Your task to perform on an android device: delete the emails in spam in the gmail app Image 0: 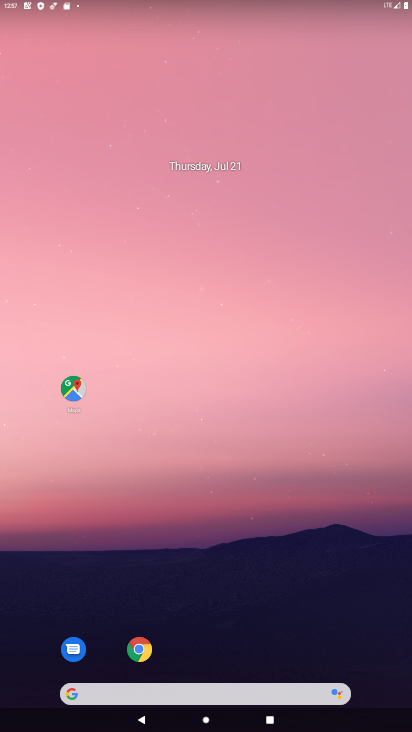
Step 0: drag from (170, 670) to (175, 178)
Your task to perform on an android device: delete the emails in spam in the gmail app Image 1: 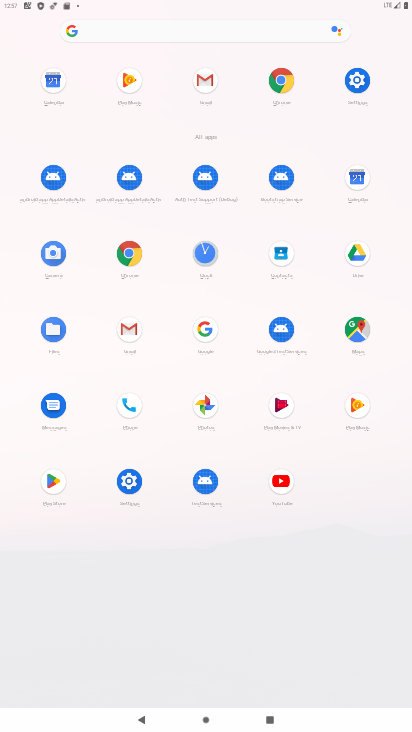
Step 1: click (214, 85)
Your task to perform on an android device: delete the emails in spam in the gmail app Image 2: 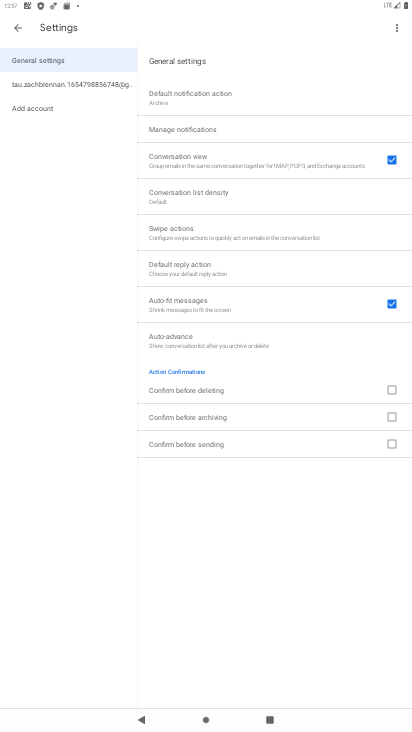
Step 2: click (10, 25)
Your task to perform on an android device: delete the emails in spam in the gmail app Image 3: 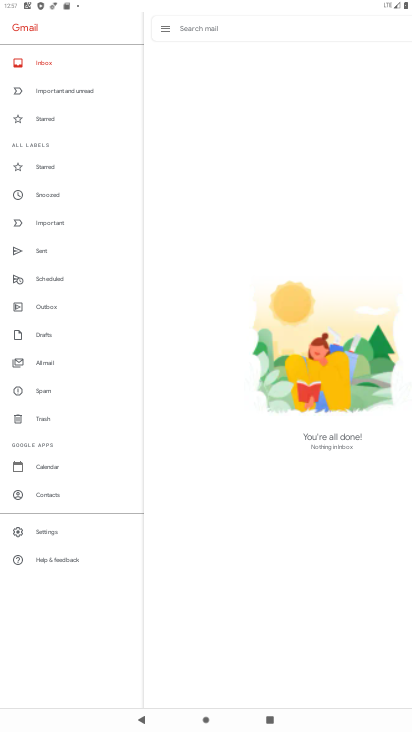
Step 3: click (41, 394)
Your task to perform on an android device: delete the emails in spam in the gmail app Image 4: 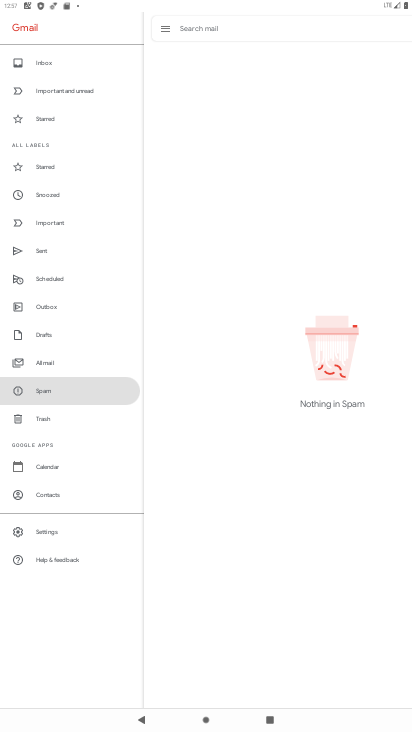
Step 4: task complete